Your task to perform on an android device: Open Chrome and go to settings Image 0: 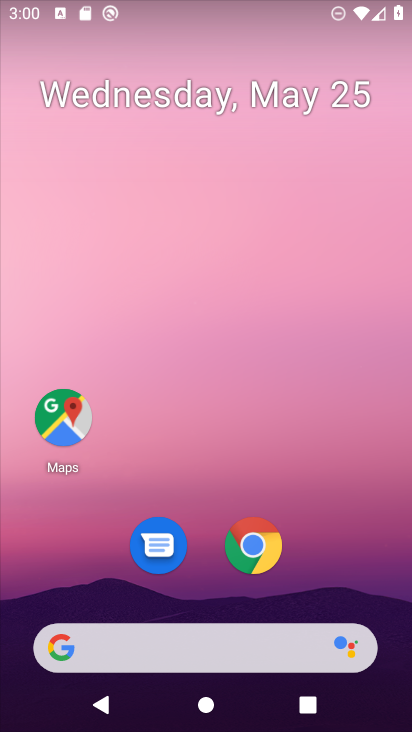
Step 0: click (281, 543)
Your task to perform on an android device: Open Chrome and go to settings Image 1: 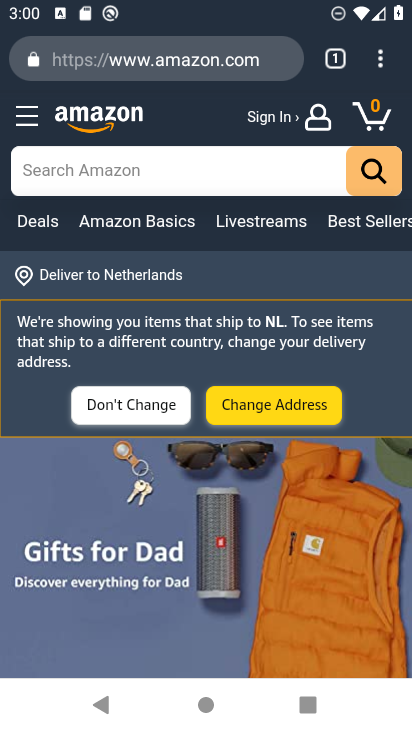
Step 1: click (378, 68)
Your task to perform on an android device: Open Chrome and go to settings Image 2: 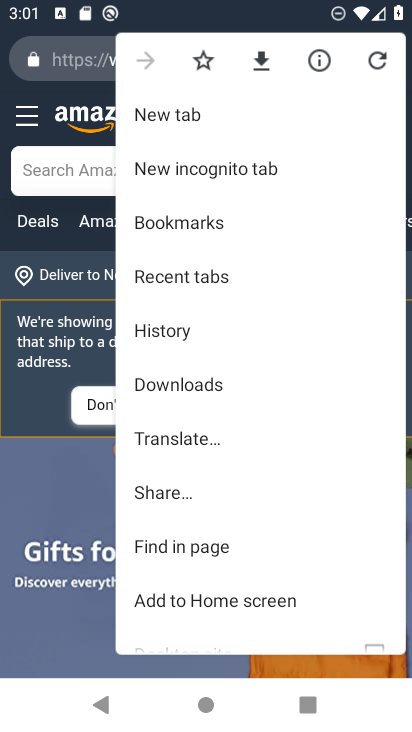
Step 2: drag from (204, 580) to (248, 204)
Your task to perform on an android device: Open Chrome and go to settings Image 3: 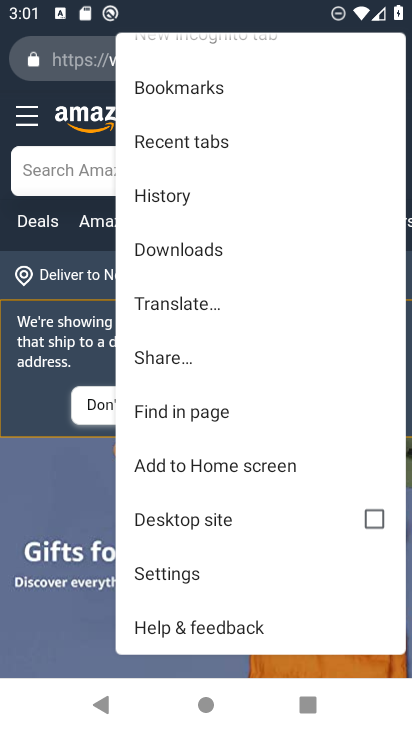
Step 3: click (196, 577)
Your task to perform on an android device: Open Chrome and go to settings Image 4: 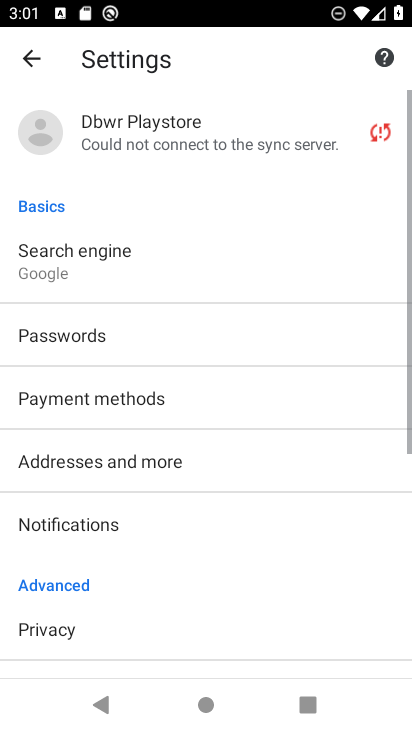
Step 4: task complete